Your task to perform on an android device: Go to notification settings Image 0: 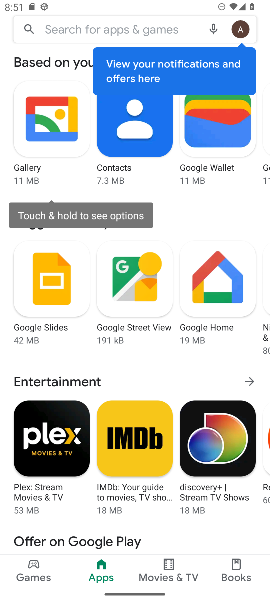
Step 0: press home button
Your task to perform on an android device: Go to notification settings Image 1: 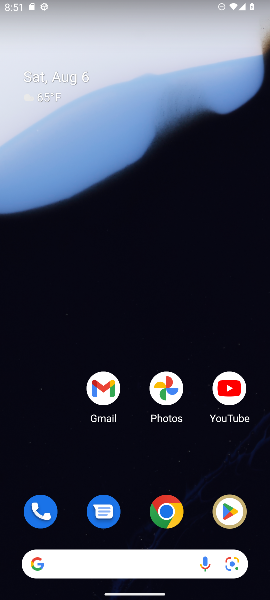
Step 1: drag from (172, 482) to (185, 147)
Your task to perform on an android device: Go to notification settings Image 2: 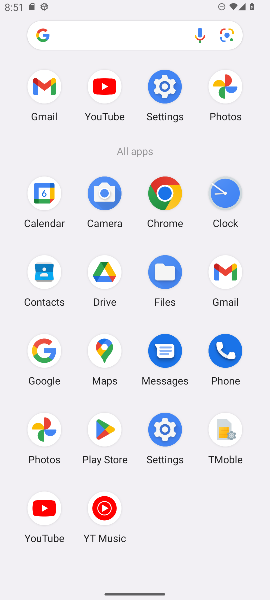
Step 2: click (165, 83)
Your task to perform on an android device: Go to notification settings Image 3: 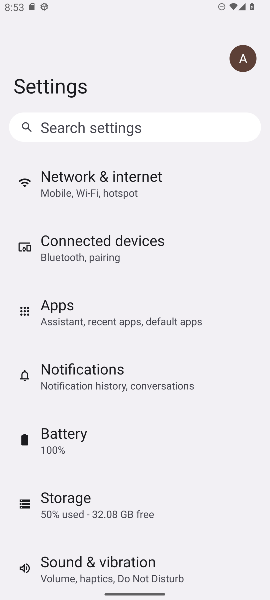
Step 3: click (97, 376)
Your task to perform on an android device: Go to notification settings Image 4: 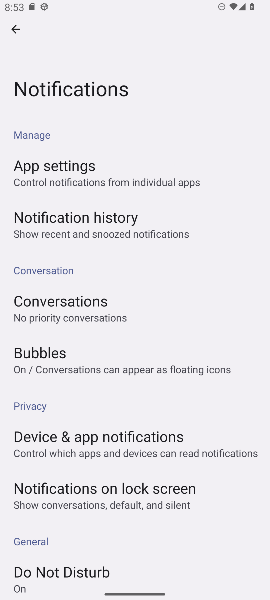
Step 4: task complete